Your task to perform on an android device: Go to display settings Image 0: 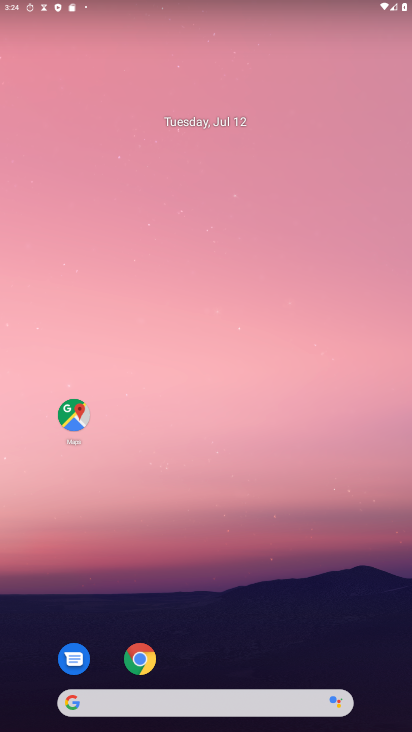
Step 0: drag from (309, 636) to (244, 131)
Your task to perform on an android device: Go to display settings Image 1: 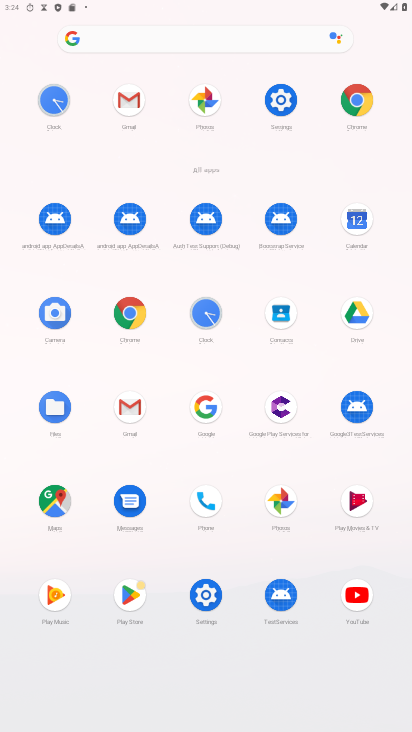
Step 1: click (288, 96)
Your task to perform on an android device: Go to display settings Image 2: 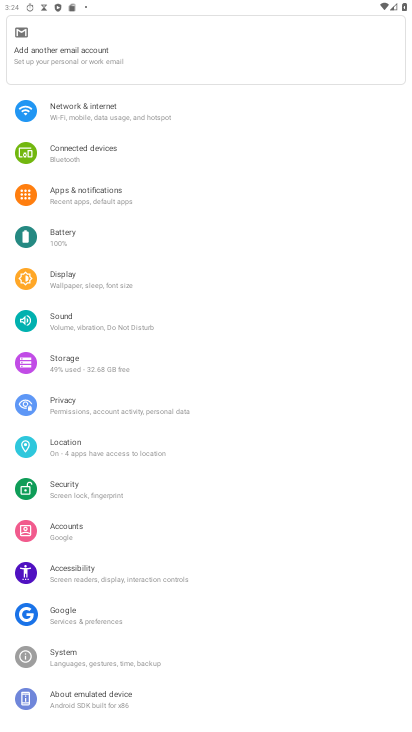
Step 2: click (208, 285)
Your task to perform on an android device: Go to display settings Image 3: 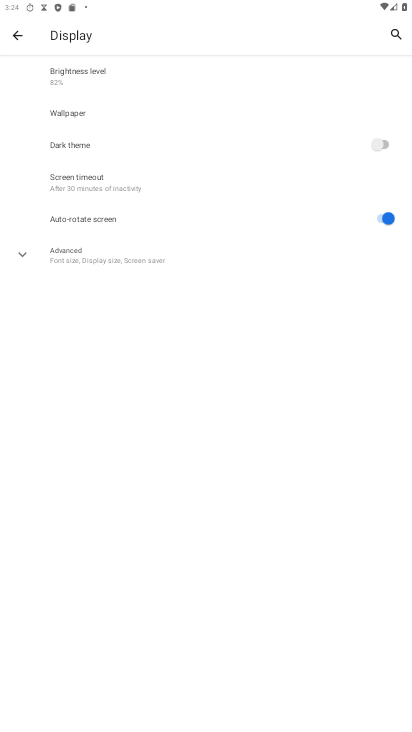
Step 3: task complete